Your task to perform on an android device: turn on bluetooth scan Image 0: 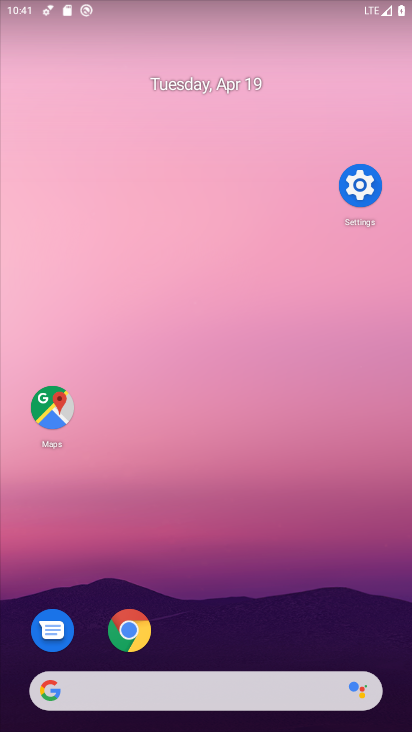
Step 0: drag from (215, 571) to (277, 224)
Your task to perform on an android device: turn on bluetooth scan Image 1: 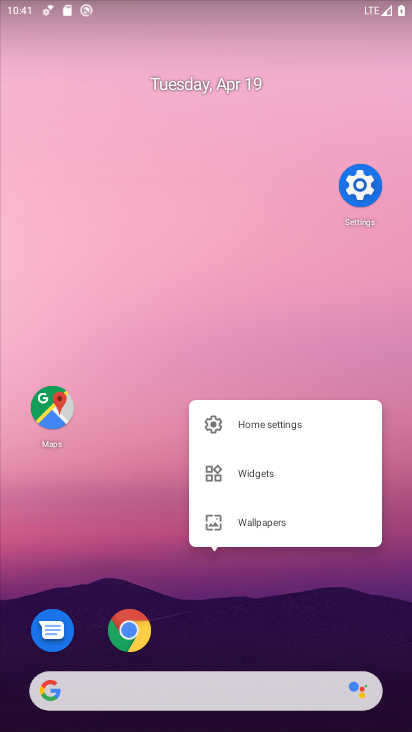
Step 1: click (163, 306)
Your task to perform on an android device: turn on bluetooth scan Image 2: 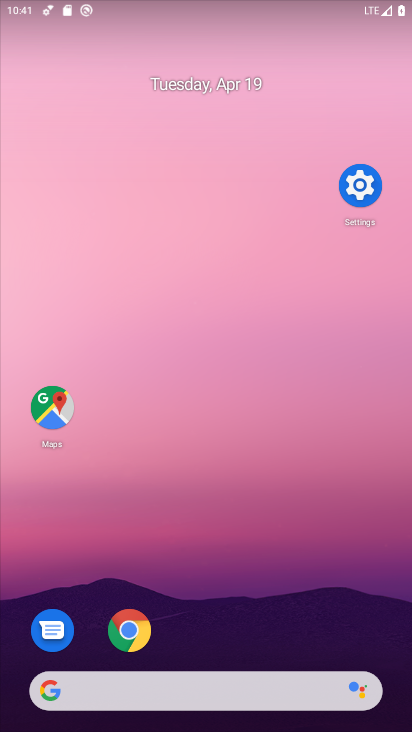
Step 2: drag from (197, 667) to (233, 74)
Your task to perform on an android device: turn on bluetooth scan Image 3: 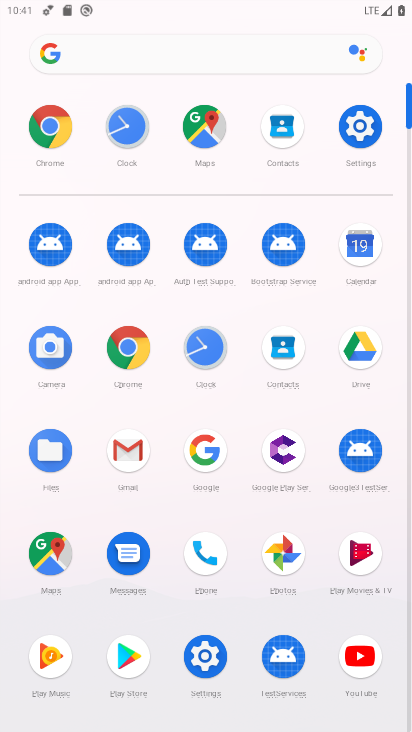
Step 3: click (211, 671)
Your task to perform on an android device: turn on bluetooth scan Image 4: 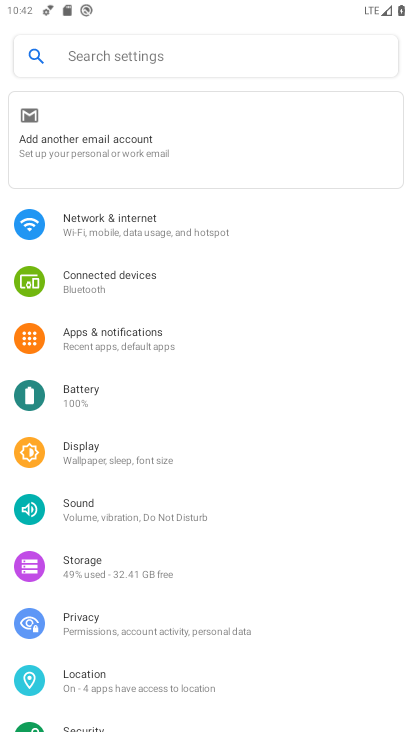
Step 4: click (149, 280)
Your task to perform on an android device: turn on bluetooth scan Image 5: 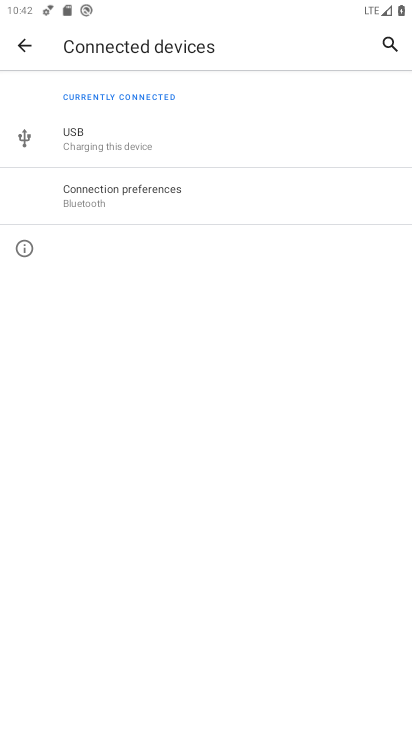
Step 5: click (190, 197)
Your task to perform on an android device: turn on bluetooth scan Image 6: 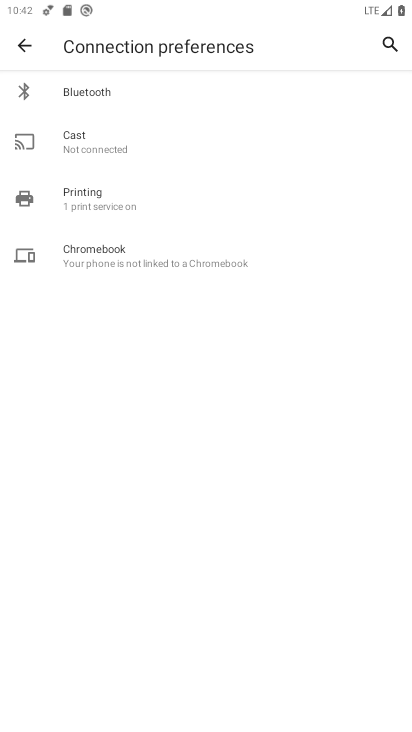
Step 6: click (157, 104)
Your task to perform on an android device: turn on bluetooth scan Image 7: 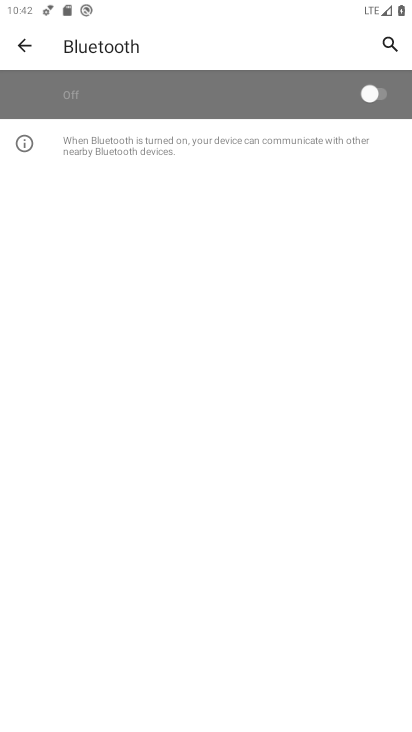
Step 7: click (381, 97)
Your task to perform on an android device: turn on bluetooth scan Image 8: 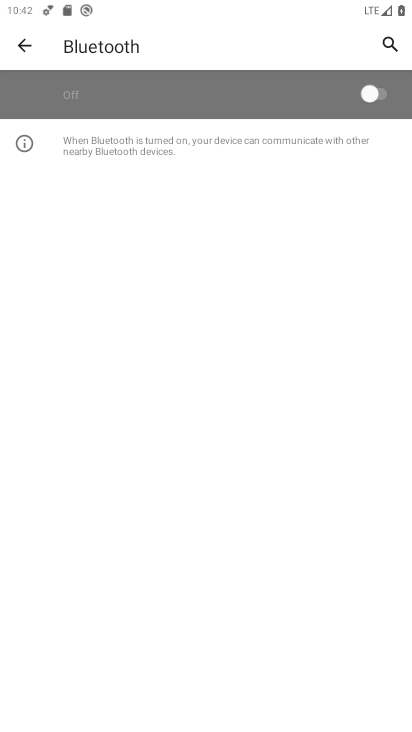
Step 8: task complete